Your task to perform on an android device: Open Google Maps Image 0: 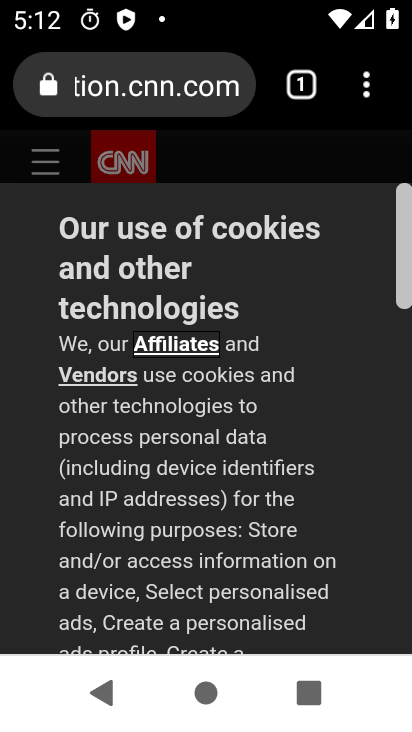
Step 0: press home button
Your task to perform on an android device: Open Google Maps Image 1: 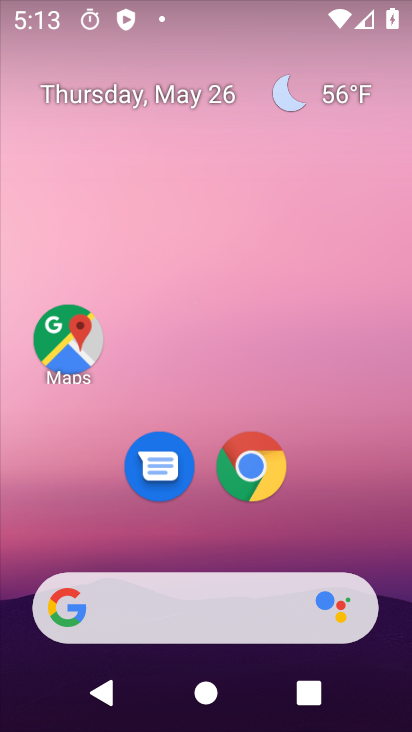
Step 1: drag from (255, 523) to (278, 79)
Your task to perform on an android device: Open Google Maps Image 2: 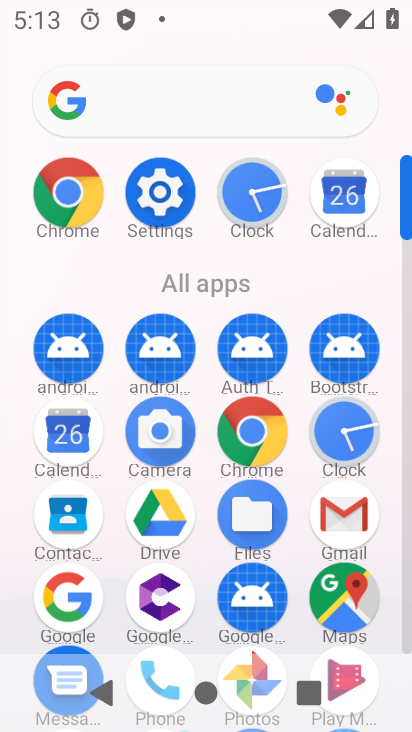
Step 2: click (334, 602)
Your task to perform on an android device: Open Google Maps Image 3: 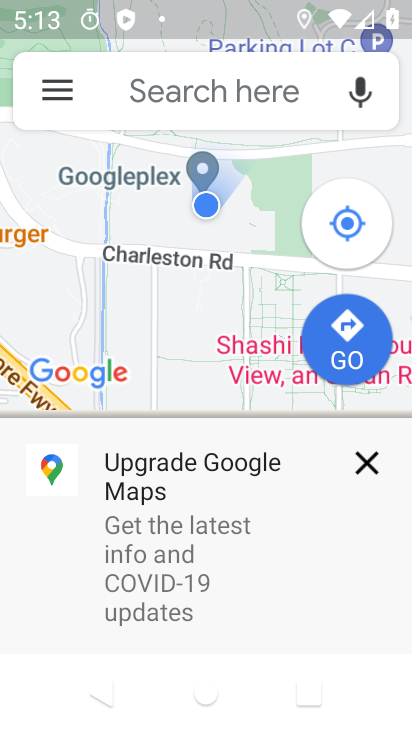
Step 3: click (362, 452)
Your task to perform on an android device: Open Google Maps Image 4: 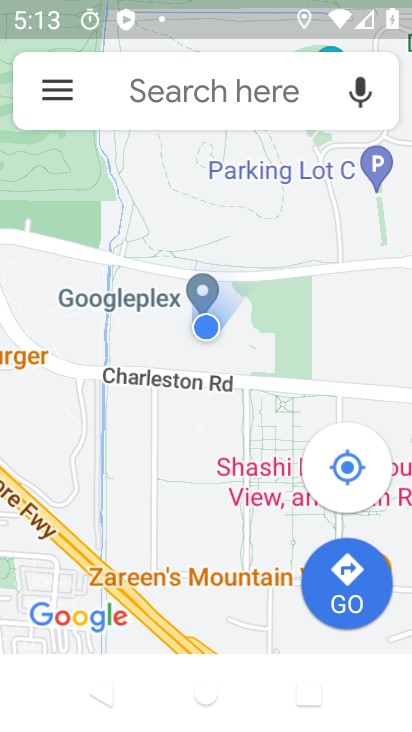
Step 4: task complete